Your task to perform on an android device: What's on my calendar today? Image 0: 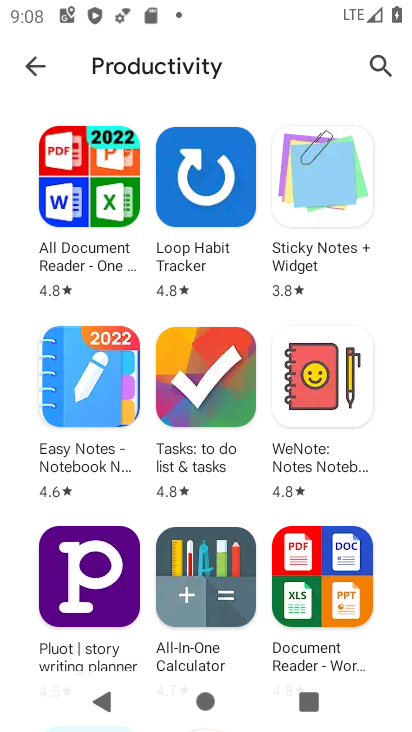
Step 0: press home button
Your task to perform on an android device: What's on my calendar today? Image 1: 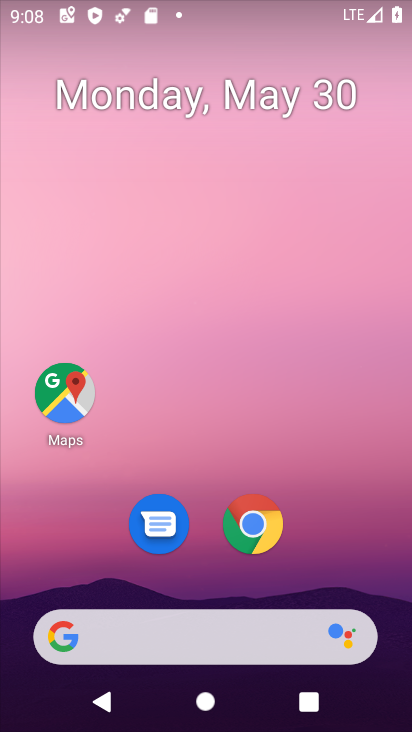
Step 1: drag from (343, 520) to (288, 101)
Your task to perform on an android device: What's on my calendar today? Image 2: 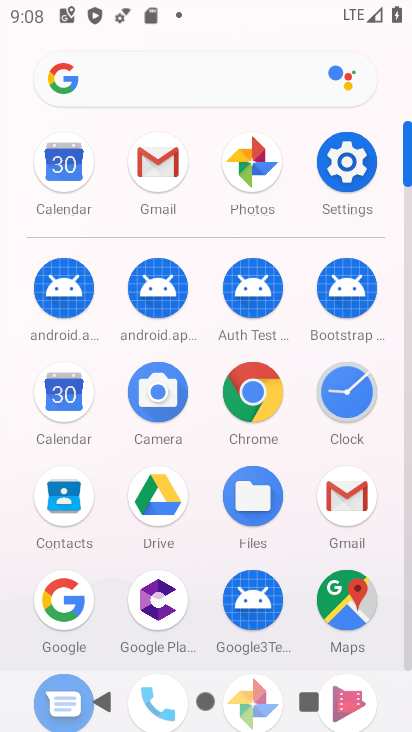
Step 2: click (52, 162)
Your task to perform on an android device: What's on my calendar today? Image 3: 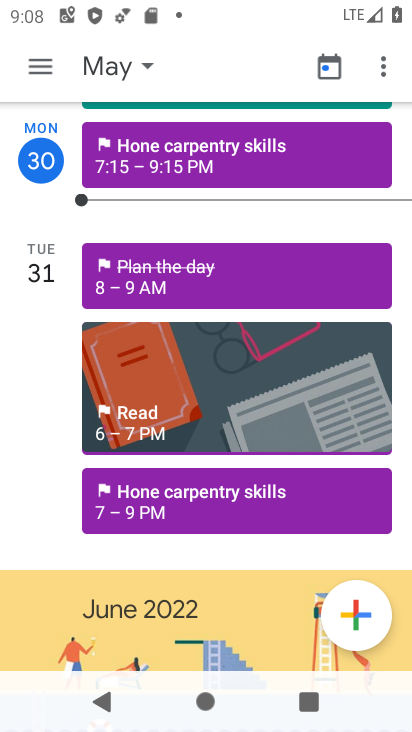
Step 3: task complete